Your task to perform on an android device: Search for Mexican restaurants on Maps Image 0: 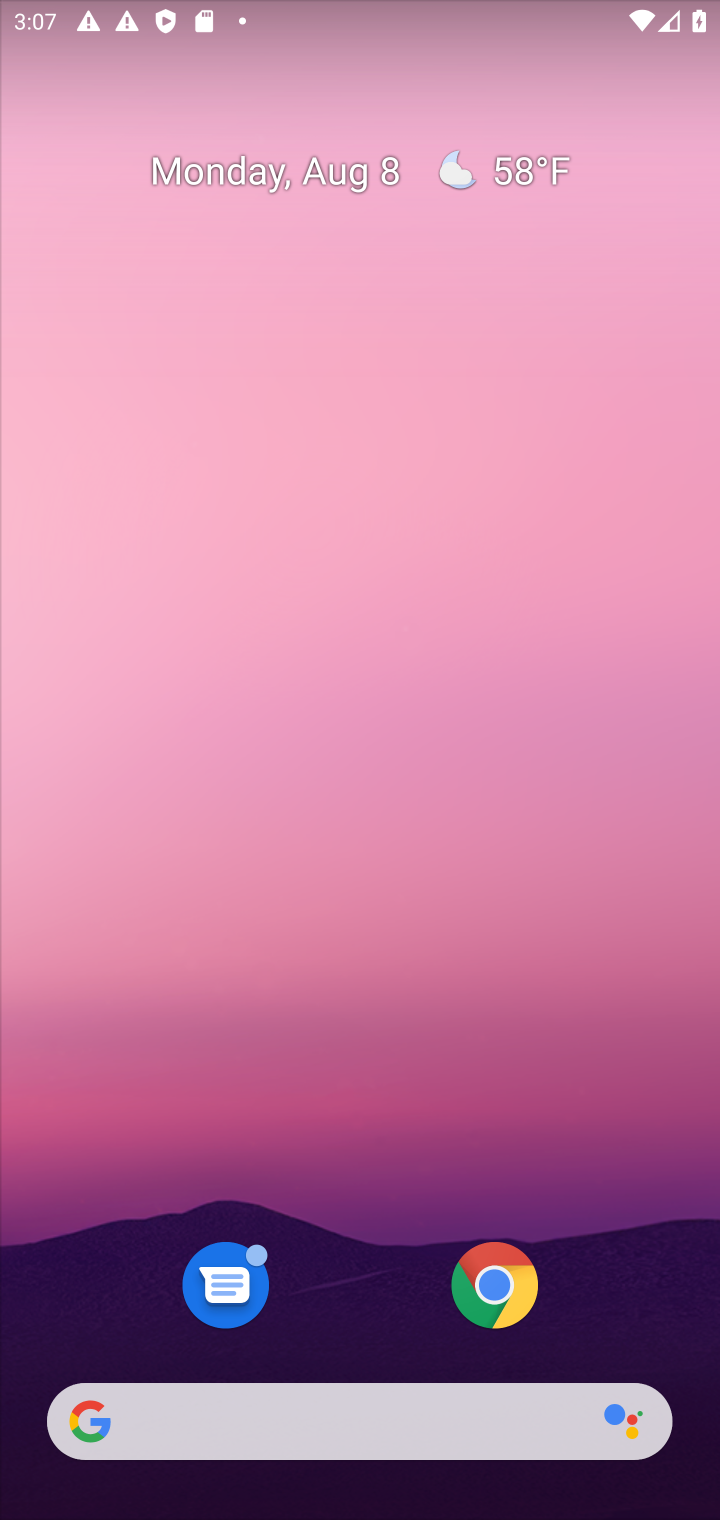
Step 0: drag from (421, 652) to (473, 192)
Your task to perform on an android device: Search for Mexican restaurants on Maps Image 1: 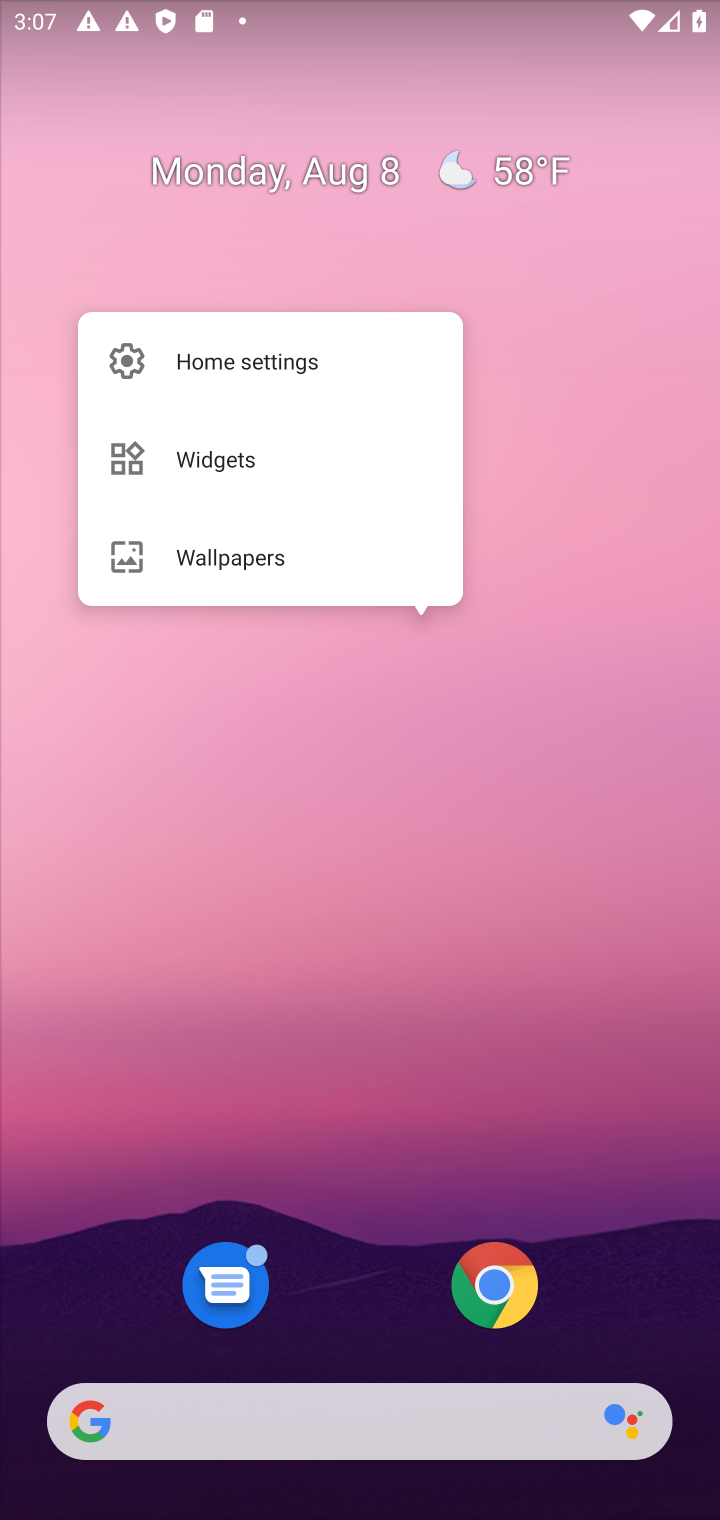
Step 1: drag from (394, 376) to (454, 168)
Your task to perform on an android device: Search for Mexican restaurants on Maps Image 2: 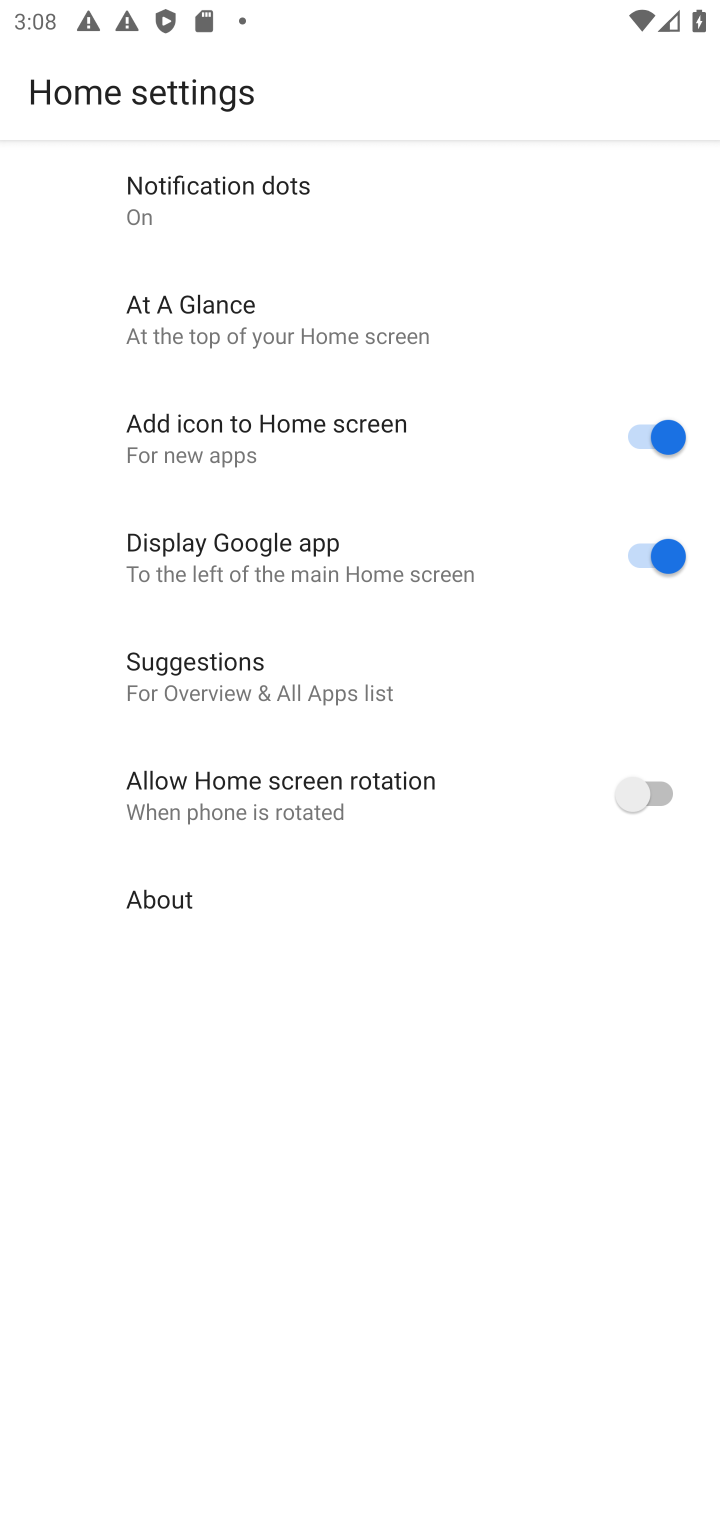
Step 2: press back button
Your task to perform on an android device: Search for Mexican restaurants on Maps Image 3: 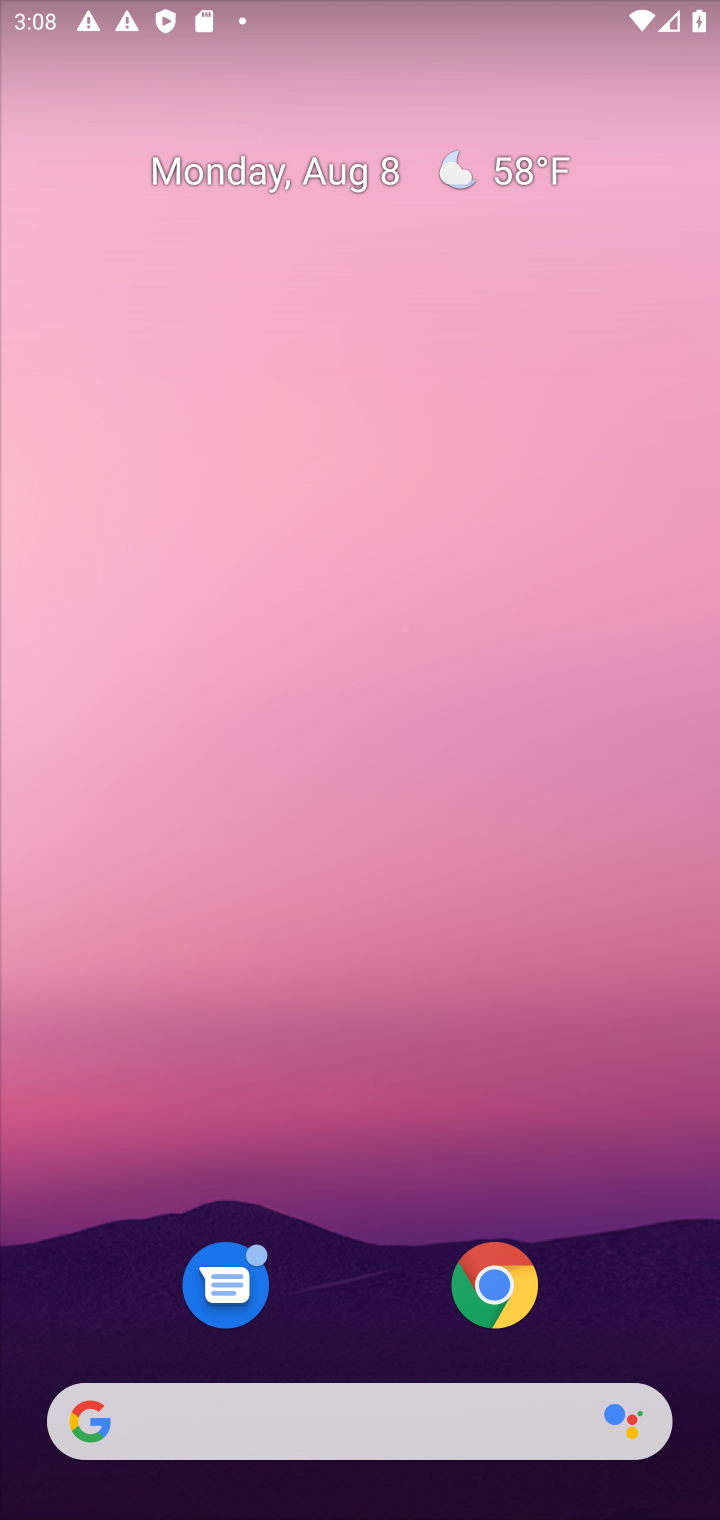
Step 3: drag from (362, 1306) to (345, 206)
Your task to perform on an android device: Search for Mexican restaurants on Maps Image 4: 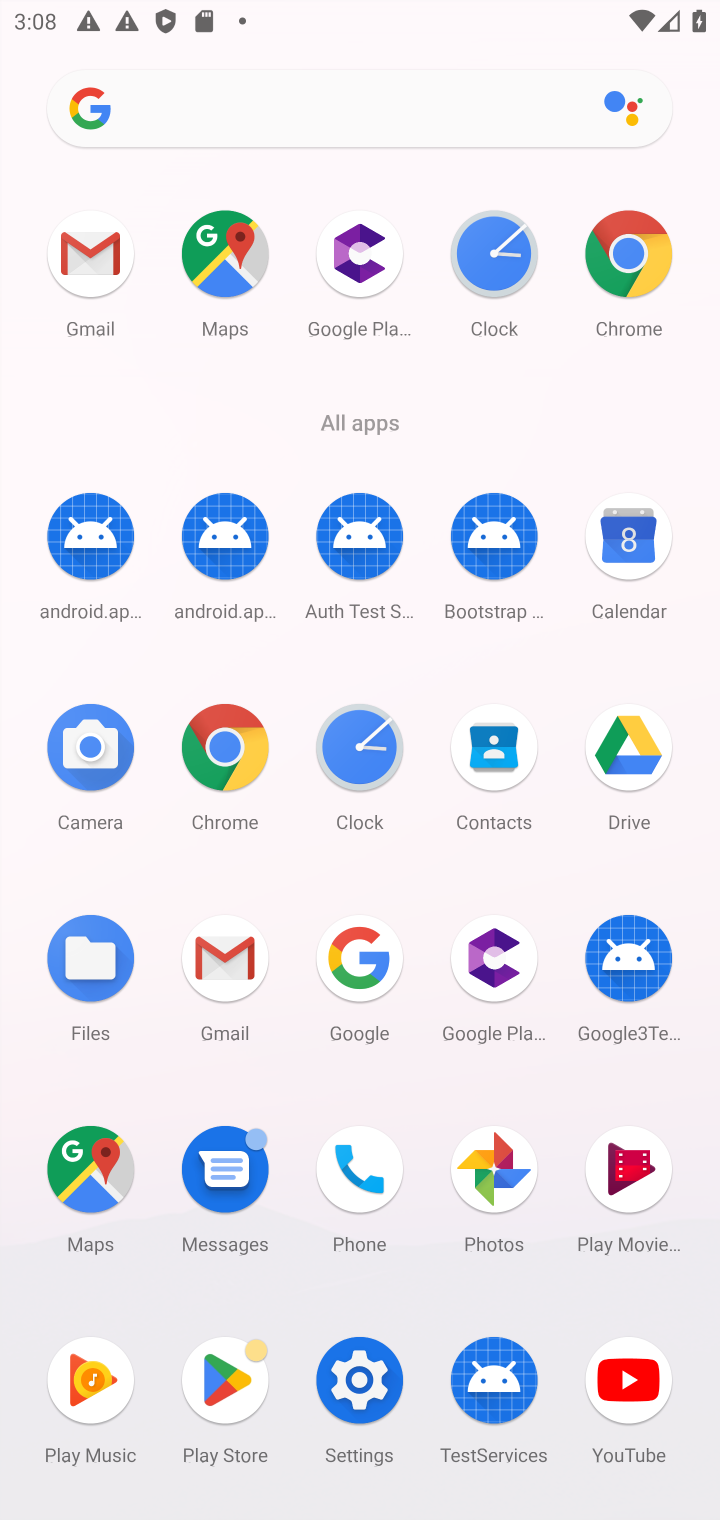
Step 4: click (233, 264)
Your task to perform on an android device: Search for Mexican restaurants on Maps Image 5: 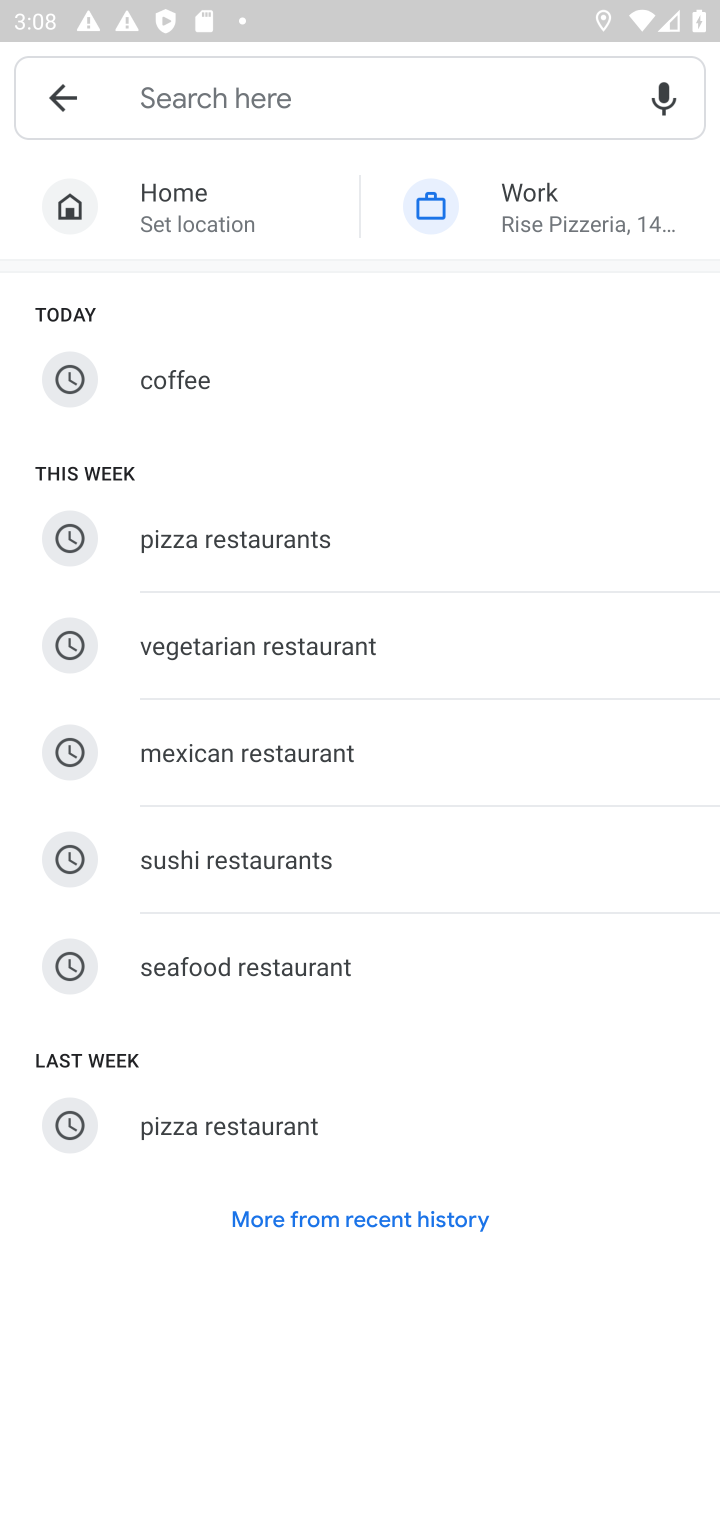
Step 5: click (317, 747)
Your task to perform on an android device: Search for Mexican restaurants on Maps Image 6: 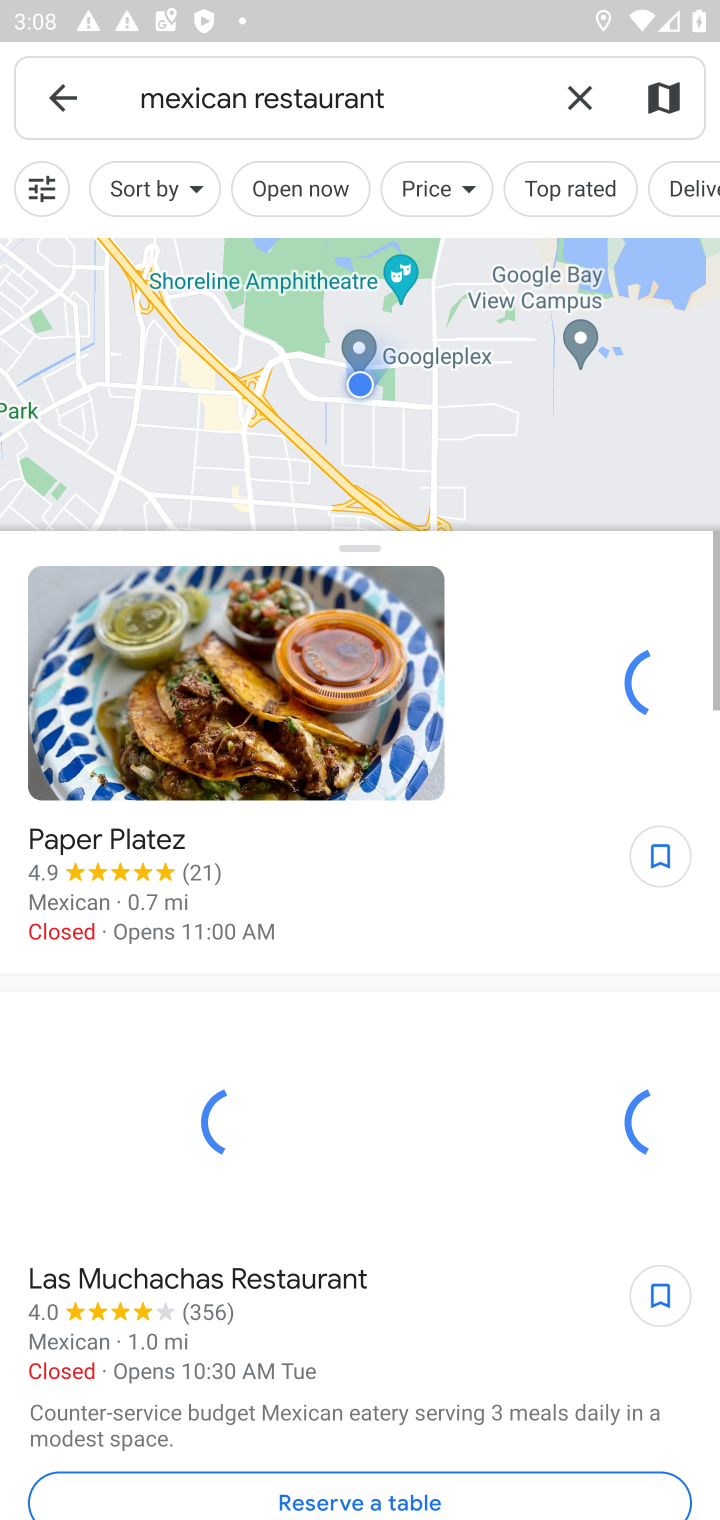
Step 6: task complete